Your task to perform on an android device: Open the web browser Image 0: 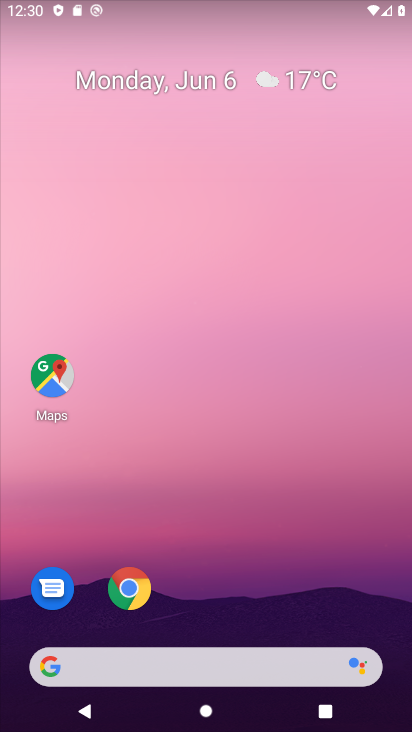
Step 0: click (132, 594)
Your task to perform on an android device: Open the web browser Image 1: 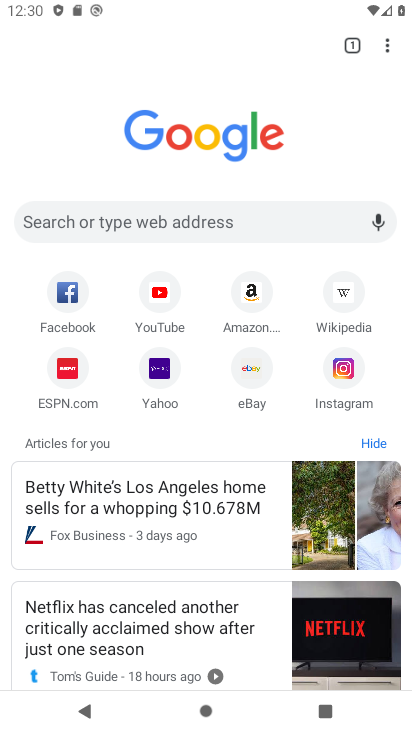
Step 1: task complete